Your task to perform on an android device: Go to accessibility settings Image 0: 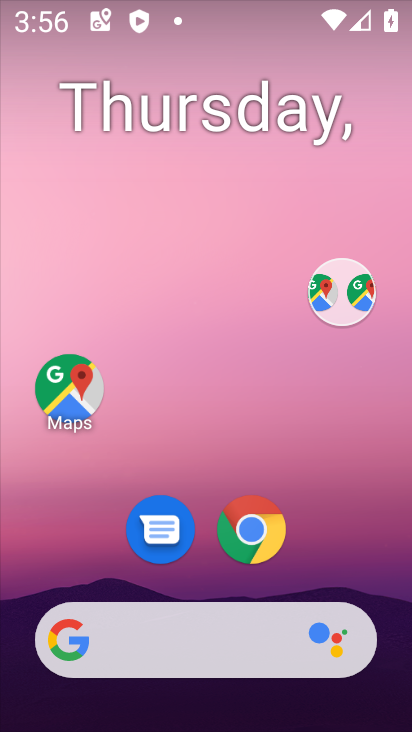
Step 0: drag from (238, 598) to (328, 140)
Your task to perform on an android device: Go to accessibility settings Image 1: 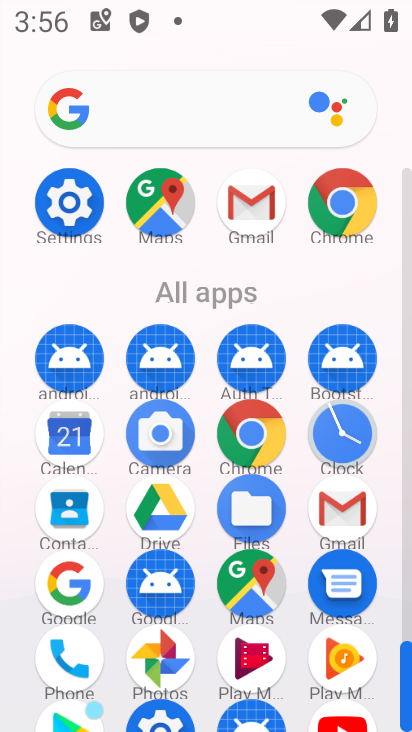
Step 1: click (62, 221)
Your task to perform on an android device: Go to accessibility settings Image 2: 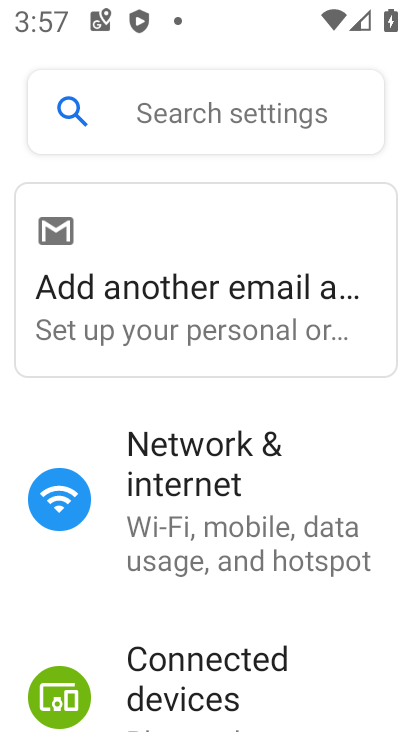
Step 2: drag from (149, 467) to (273, 75)
Your task to perform on an android device: Go to accessibility settings Image 3: 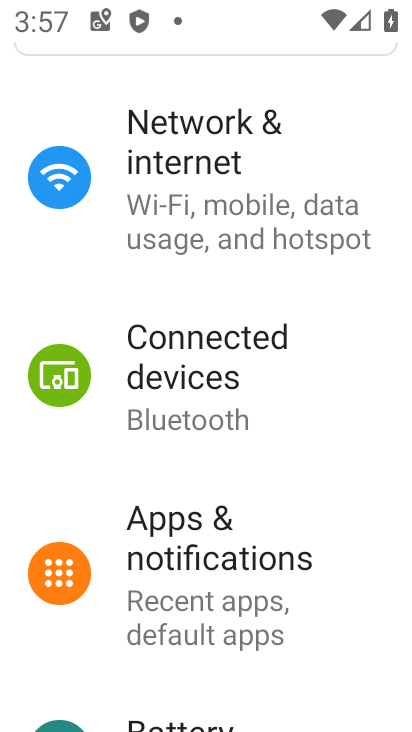
Step 3: drag from (230, 524) to (361, 157)
Your task to perform on an android device: Go to accessibility settings Image 4: 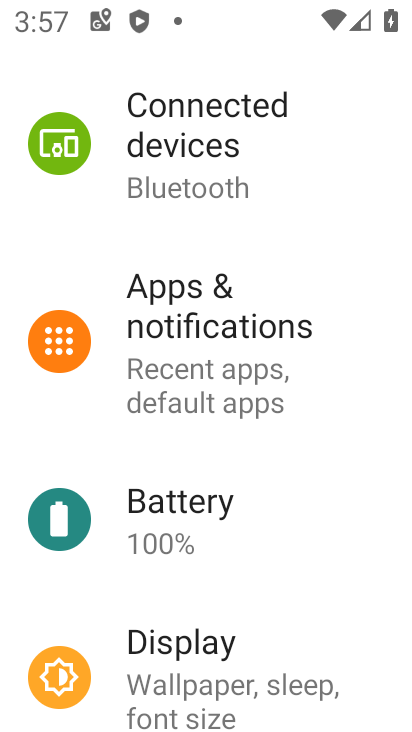
Step 4: drag from (241, 558) to (387, 164)
Your task to perform on an android device: Go to accessibility settings Image 5: 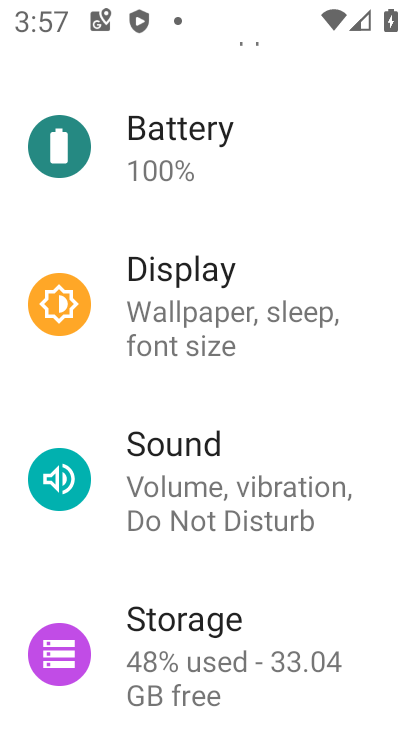
Step 5: drag from (273, 557) to (383, 184)
Your task to perform on an android device: Go to accessibility settings Image 6: 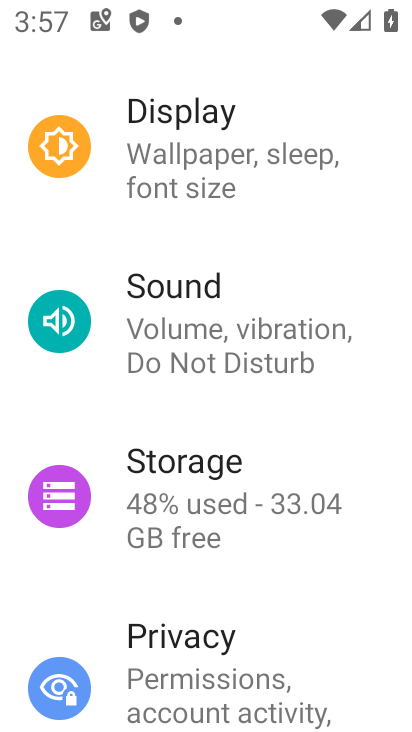
Step 6: drag from (277, 596) to (406, 248)
Your task to perform on an android device: Go to accessibility settings Image 7: 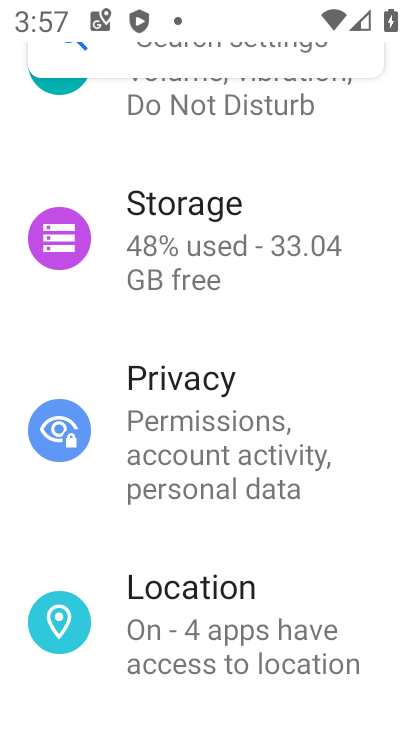
Step 7: drag from (240, 540) to (402, 36)
Your task to perform on an android device: Go to accessibility settings Image 8: 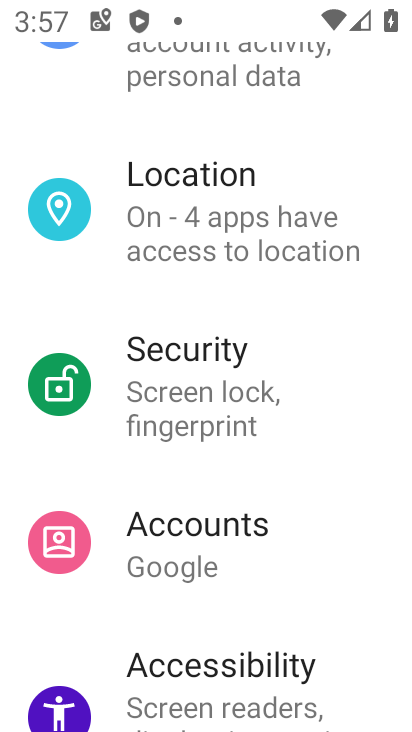
Step 8: click (220, 637)
Your task to perform on an android device: Go to accessibility settings Image 9: 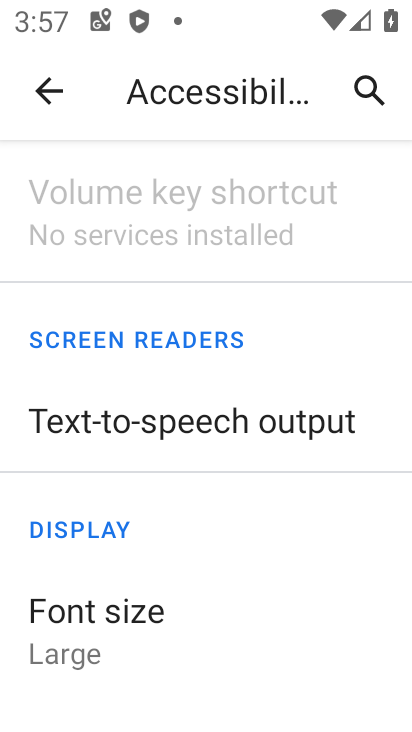
Step 9: task complete